Your task to perform on an android device: Go to accessibility settings Image 0: 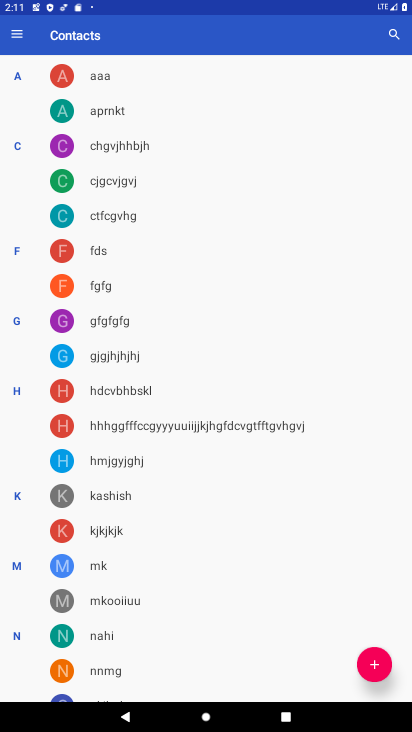
Step 0: press back button
Your task to perform on an android device: Go to accessibility settings Image 1: 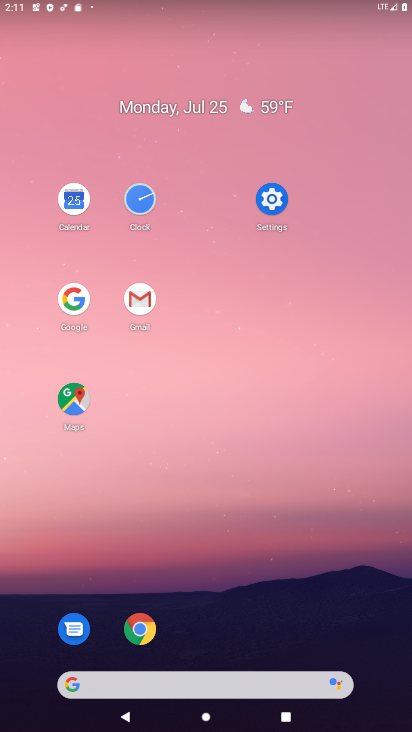
Step 1: click (274, 201)
Your task to perform on an android device: Go to accessibility settings Image 2: 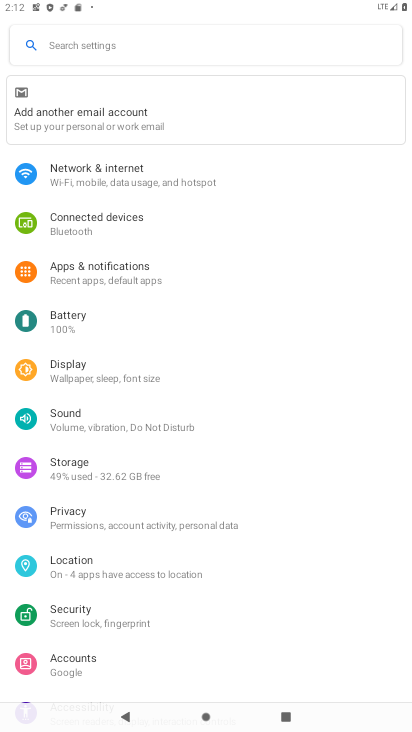
Step 2: drag from (257, 564) to (260, 233)
Your task to perform on an android device: Go to accessibility settings Image 3: 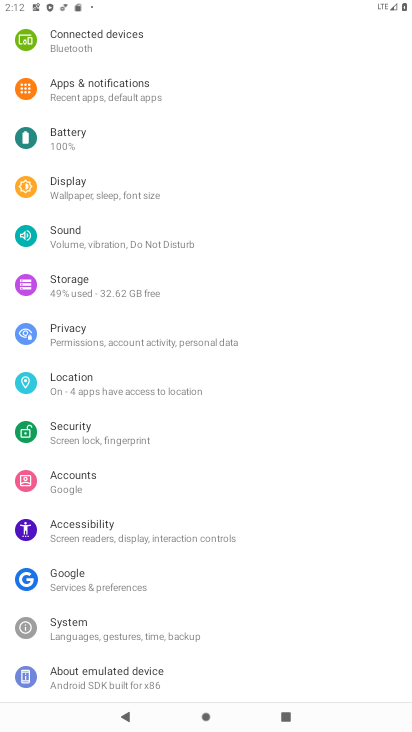
Step 3: drag from (179, 592) to (181, 256)
Your task to perform on an android device: Go to accessibility settings Image 4: 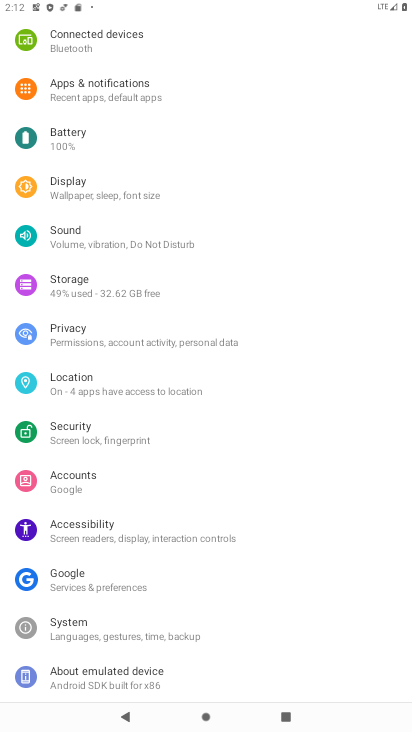
Step 4: click (184, 526)
Your task to perform on an android device: Go to accessibility settings Image 5: 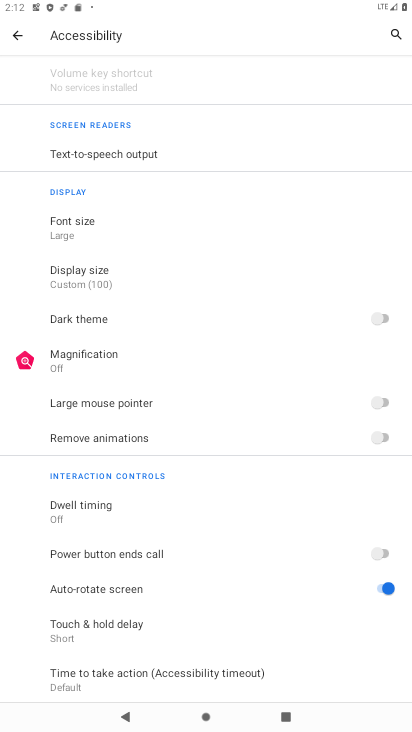
Step 5: task complete